Your task to perform on an android device: see tabs open on other devices in the chrome app Image 0: 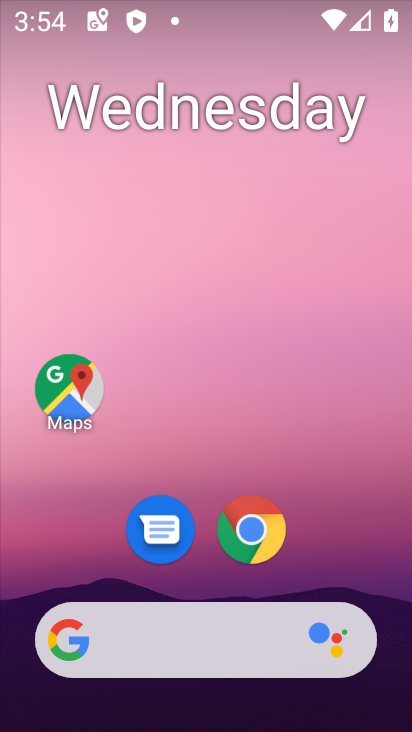
Step 0: click (270, 527)
Your task to perform on an android device: see tabs open on other devices in the chrome app Image 1: 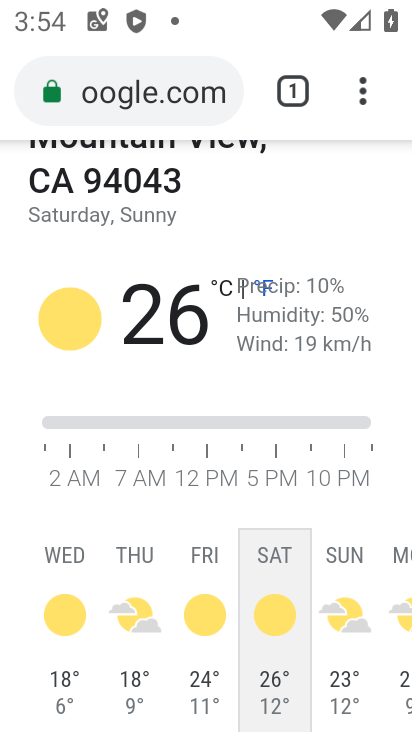
Step 1: click (369, 98)
Your task to perform on an android device: see tabs open on other devices in the chrome app Image 2: 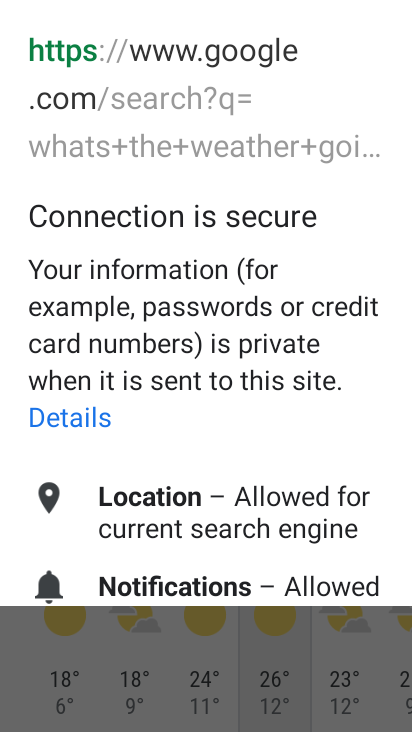
Step 2: click (319, 673)
Your task to perform on an android device: see tabs open on other devices in the chrome app Image 3: 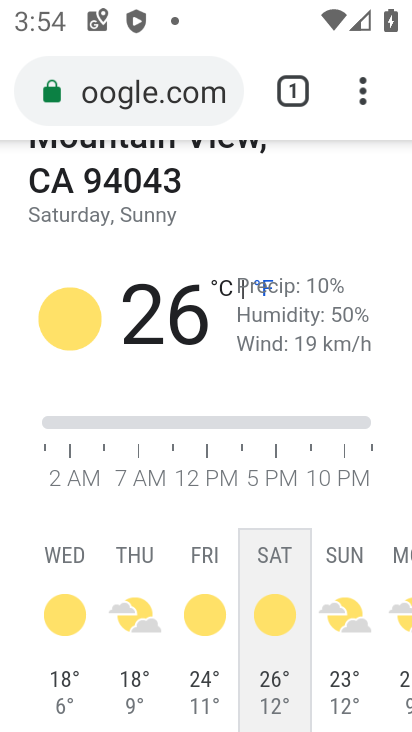
Step 3: drag from (362, 100) to (231, 433)
Your task to perform on an android device: see tabs open on other devices in the chrome app Image 4: 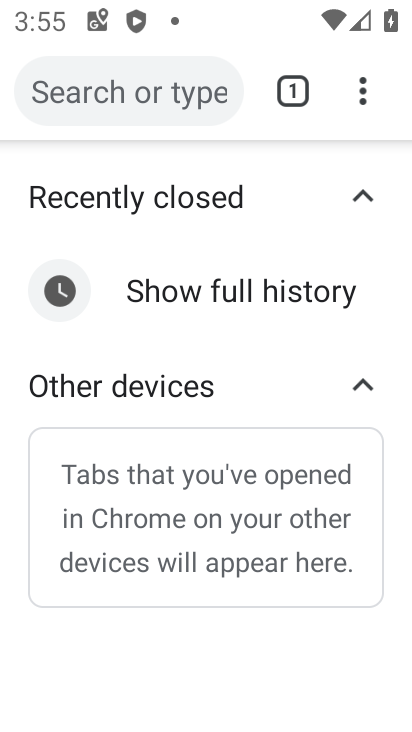
Step 4: click (300, 292)
Your task to perform on an android device: see tabs open on other devices in the chrome app Image 5: 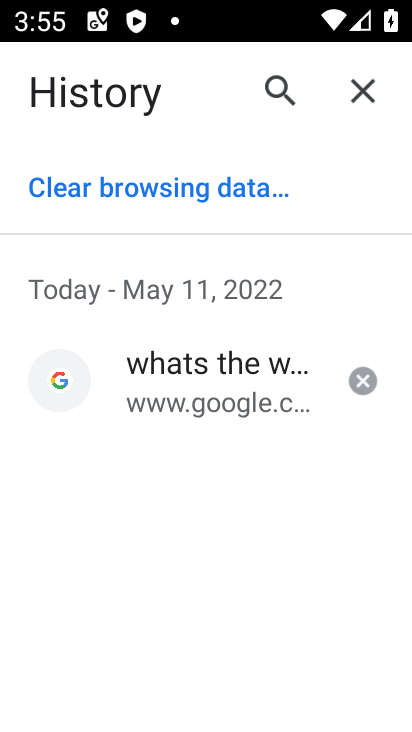
Step 5: task complete